Your task to perform on an android device: turn on airplane mode Image 0: 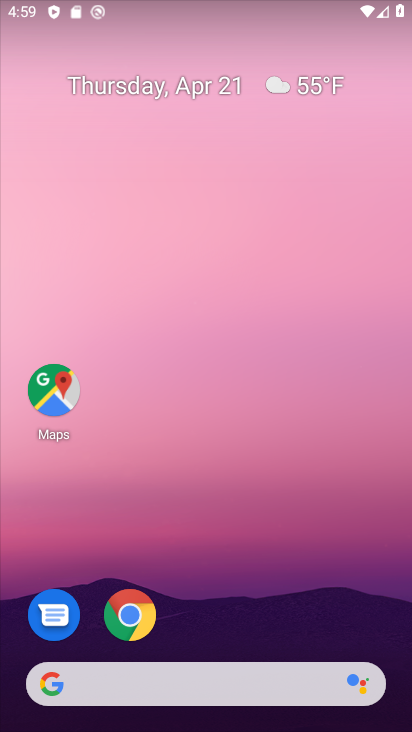
Step 0: drag from (254, 497) to (244, 124)
Your task to perform on an android device: turn on airplane mode Image 1: 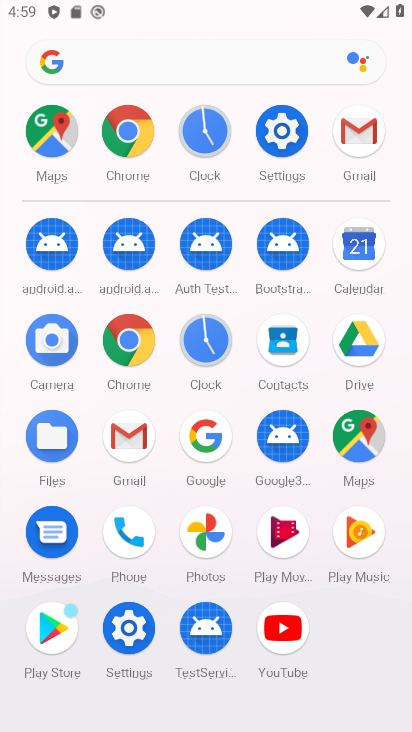
Step 1: click (282, 126)
Your task to perform on an android device: turn on airplane mode Image 2: 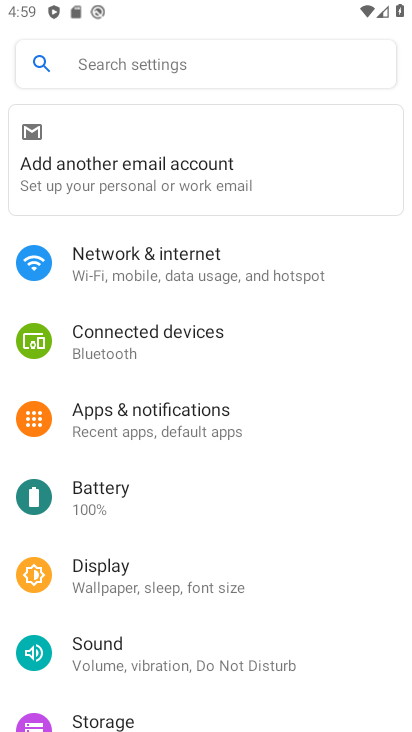
Step 2: click (201, 258)
Your task to perform on an android device: turn on airplane mode Image 3: 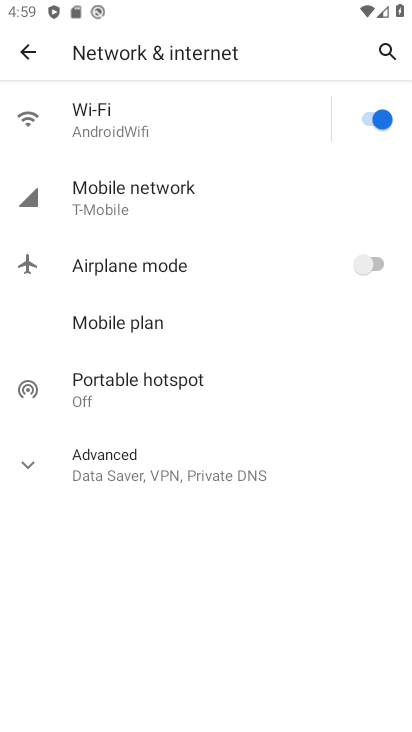
Step 3: click (379, 260)
Your task to perform on an android device: turn on airplane mode Image 4: 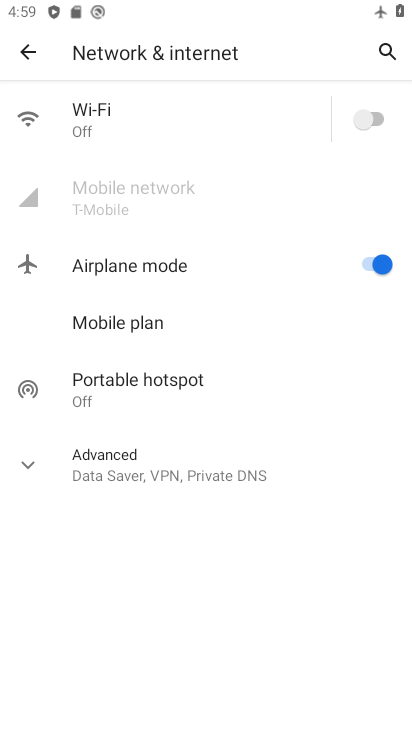
Step 4: task complete